Your task to perform on an android device: check out phone information Image 0: 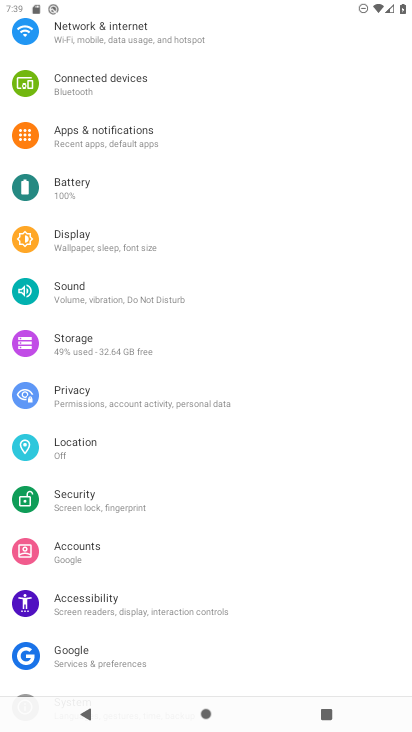
Step 0: press home button
Your task to perform on an android device: check out phone information Image 1: 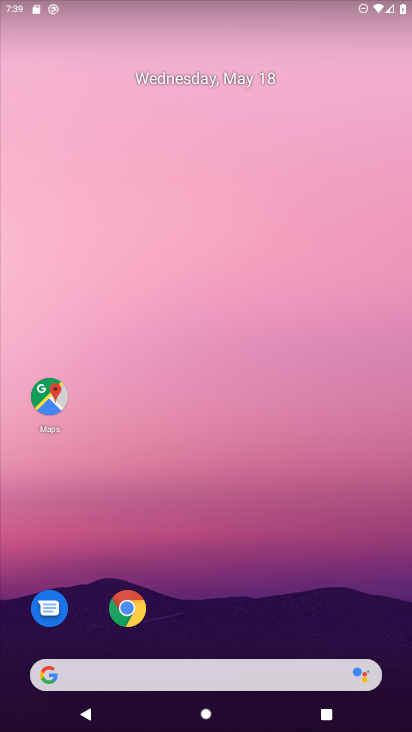
Step 1: drag from (351, 638) to (306, 28)
Your task to perform on an android device: check out phone information Image 2: 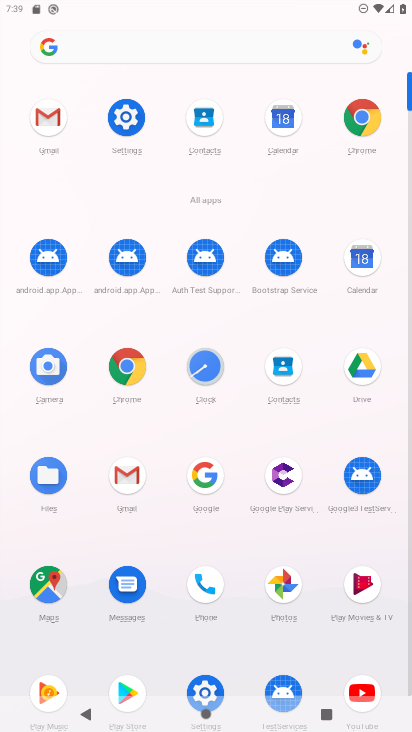
Step 2: click (118, 133)
Your task to perform on an android device: check out phone information Image 3: 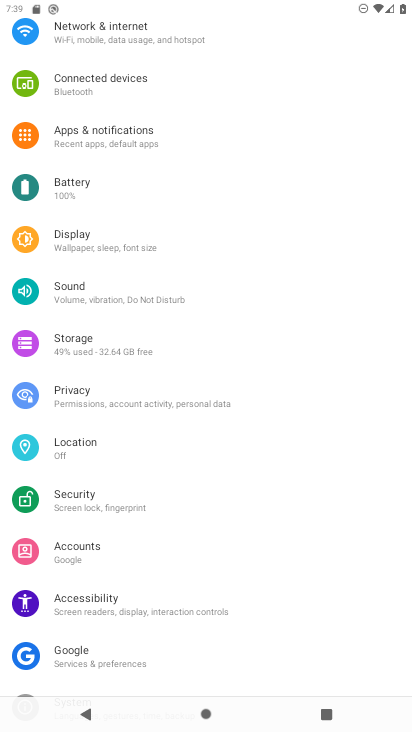
Step 3: drag from (229, 668) to (249, 101)
Your task to perform on an android device: check out phone information Image 4: 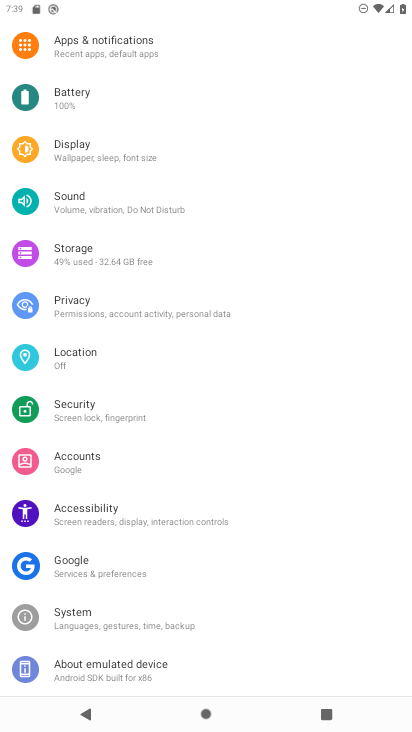
Step 4: click (190, 660)
Your task to perform on an android device: check out phone information Image 5: 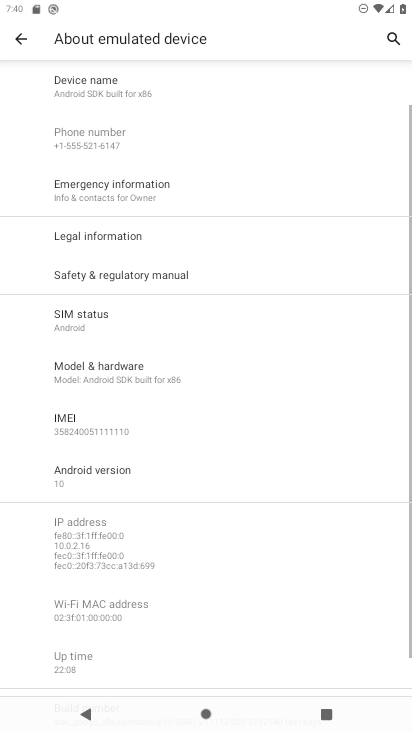
Step 5: task complete